Your task to perform on an android device: open device folders in google photos Image 0: 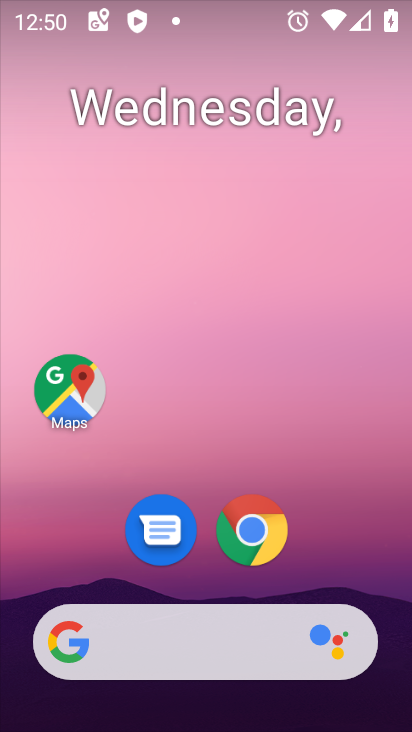
Step 0: drag from (204, 567) to (235, 182)
Your task to perform on an android device: open device folders in google photos Image 1: 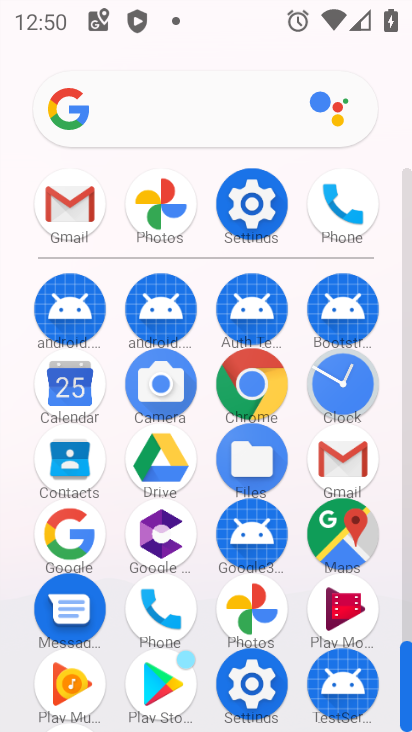
Step 1: click (252, 605)
Your task to perform on an android device: open device folders in google photos Image 2: 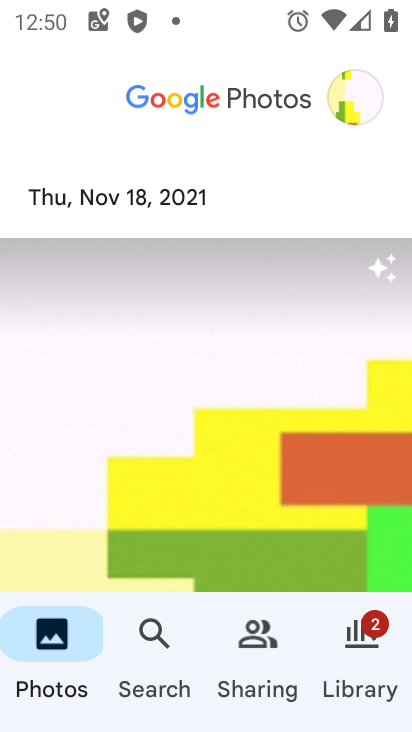
Step 2: click (155, 635)
Your task to perform on an android device: open device folders in google photos Image 3: 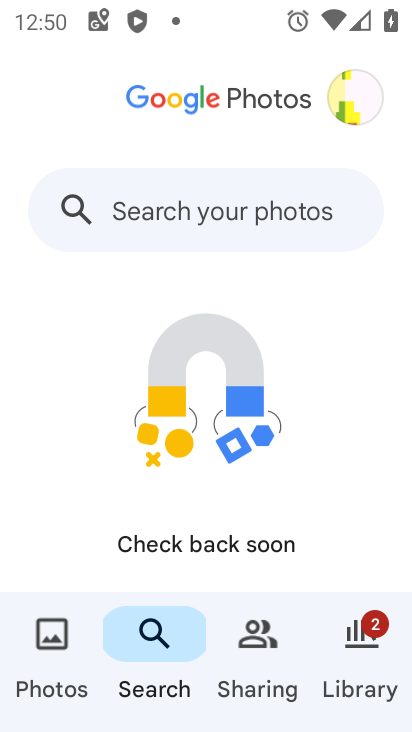
Step 3: click (120, 203)
Your task to perform on an android device: open device folders in google photos Image 4: 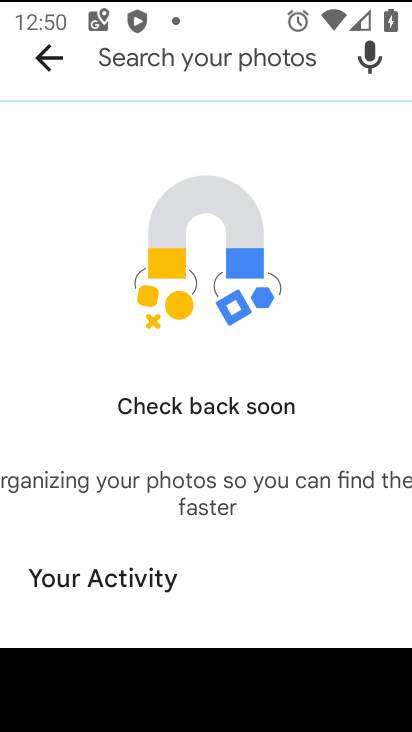
Step 4: type "device folders"
Your task to perform on an android device: open device folders in google photos Image 5: 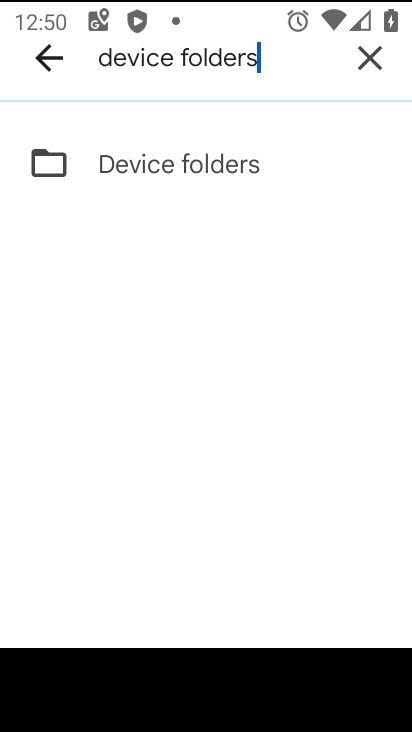
Step 5: click (184, 173)
Your task to perform on an android device: open device folders in google photos Image 6: 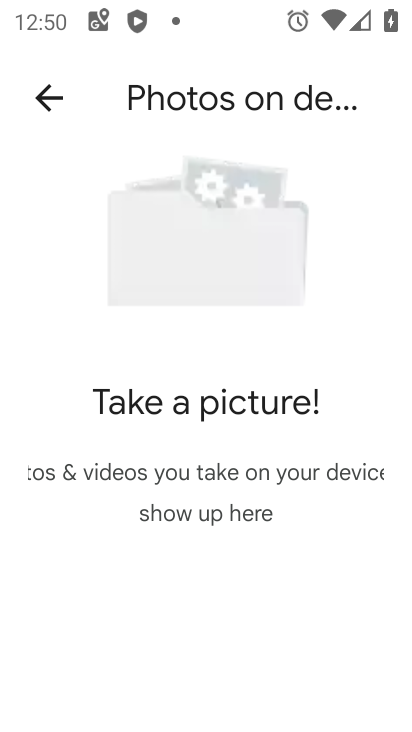
Step 6: task complete